Your task to perform on an android device: turn on javascript in the chrome app Image 0: 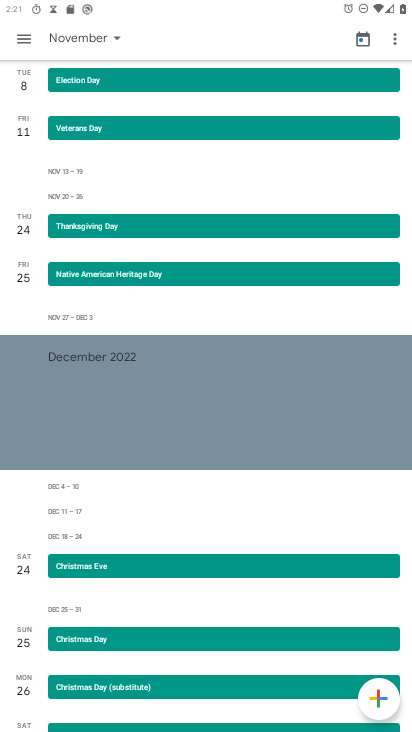
Step 0: press home button
Your task to perform on an android device: turn on javascript in the chrome app Image 1: 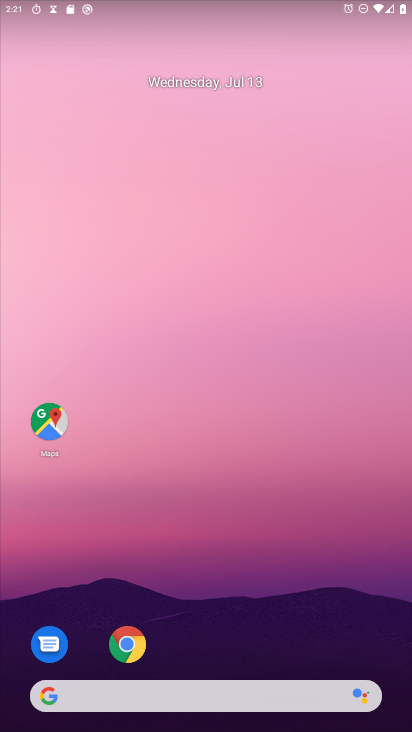
Step 1: drag from (249, 632) to (218, 173)
Your task to perform on an android device: turn on javascript in the chrome app Image 2: 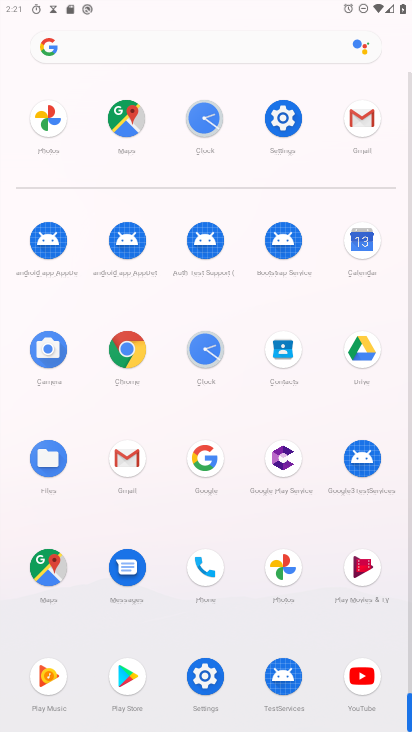
Step 2: click (130, 355)
Your task to perform on an android device: turn on javascript in the chrome app Image 3: 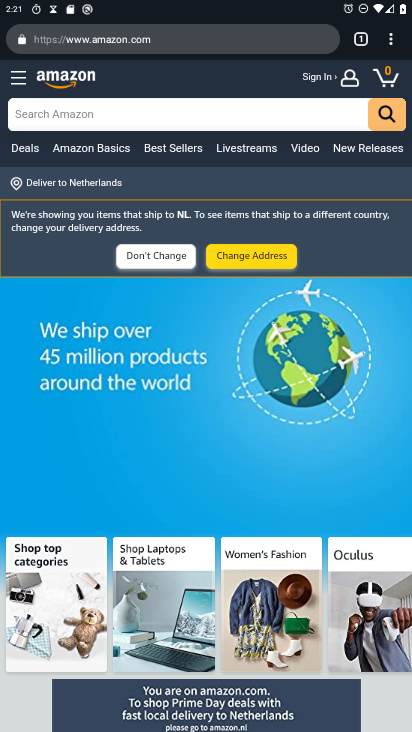
Step 3: drag from (395, 39) to (246, 474)
Your task to perform on an android device: turn on javascript in the chrome app Image 4: 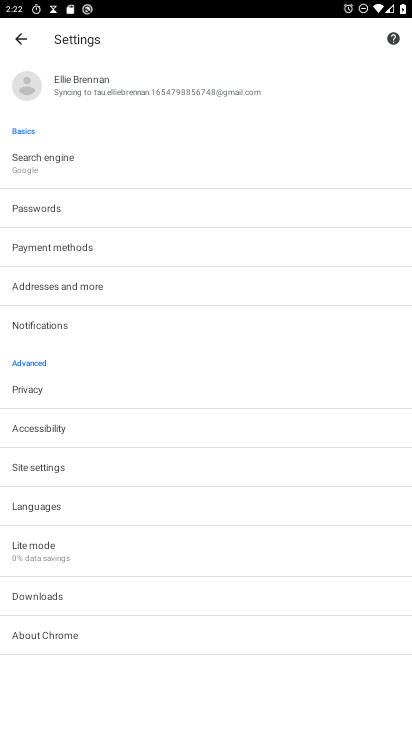
Step 4: click (24, 471)
Your task to perform on an android device: turn on javascript in the chrome app Image 5: 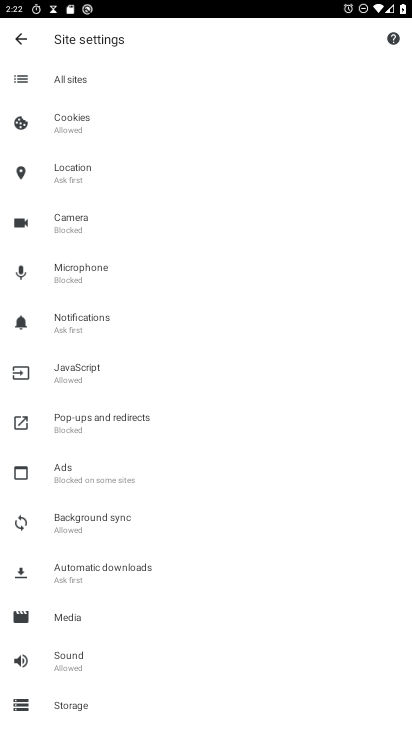
Step 5: click (90, 377)
Your task to perform on an android device: turn on javascript in the chrome app Image 6: 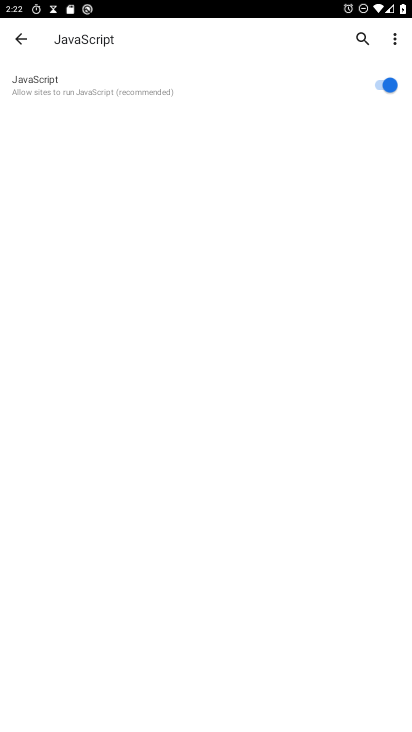
Step 6: task complete